Your task to perform on an android device: set default search engine in the chrome app Image 0: 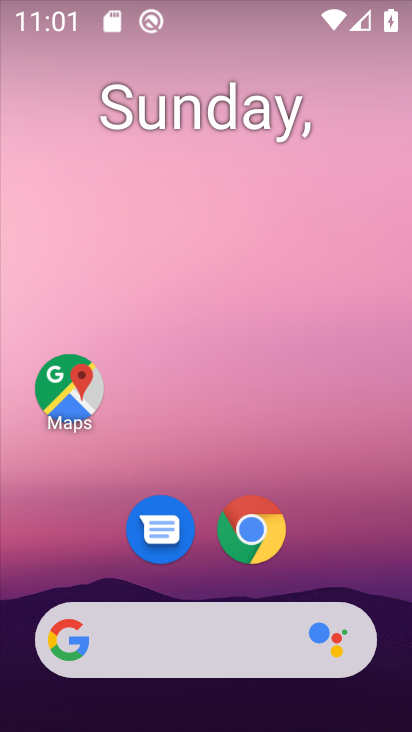
Step 0: drag from (382, 623) to (289, 128)
Your task to perform on an android device: set default search engine in the chrome app Image 1: 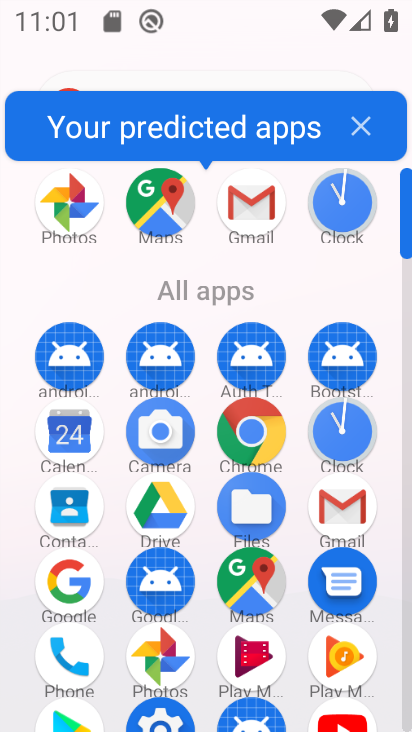
Step 1: click (244, 434)
Your task to perform on an android device: set default search engine in the chrome app Image 2: 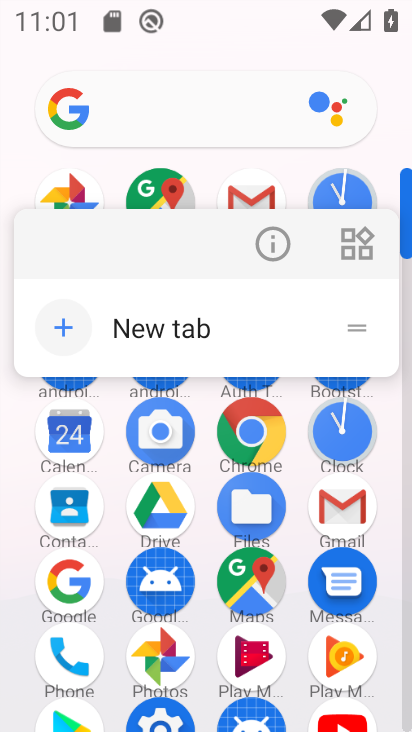
Step 2: click (244, 432)
Your task to perform on an android device: set default search engine in the chrome app Image 3: 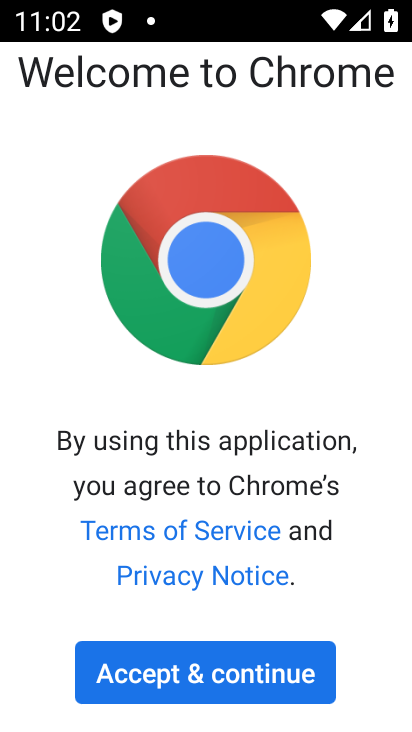
Step 3: click (223, 702)
Your task to perform on an android device: set default search engine in the chrome app Image 4: 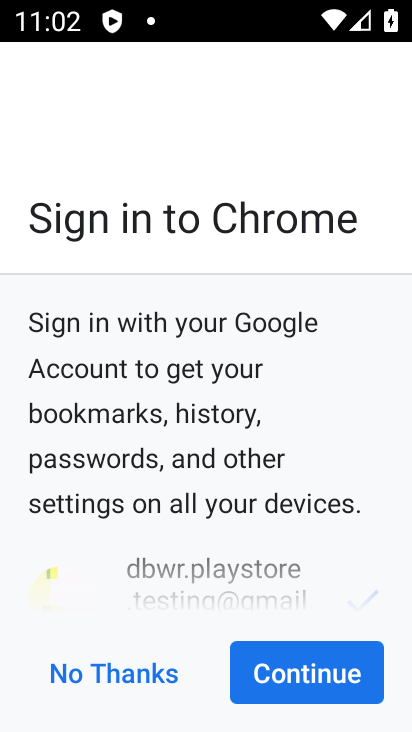
Step 4: click (263, 675)
Your task to perform on an android device: set default search engine in the chrome app Image 5: 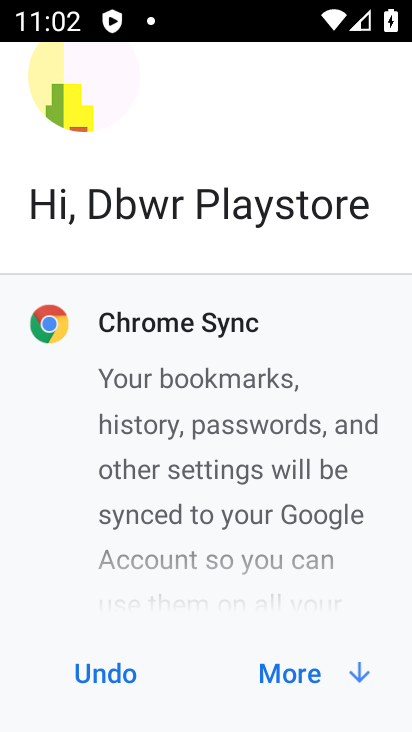
Step 5: click (263, 675)
Your task to perform on an android device: set default search engine in the chrome app Image 6: 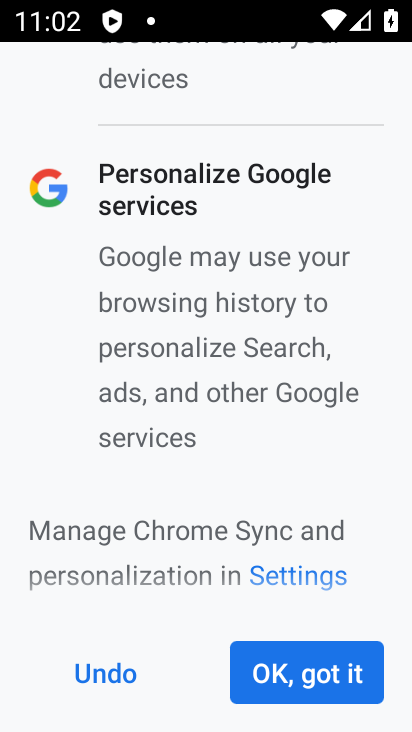
Step 6: click (263, 675)
Your task to perform on an android device: set default search engine in the chrome app Image 7: 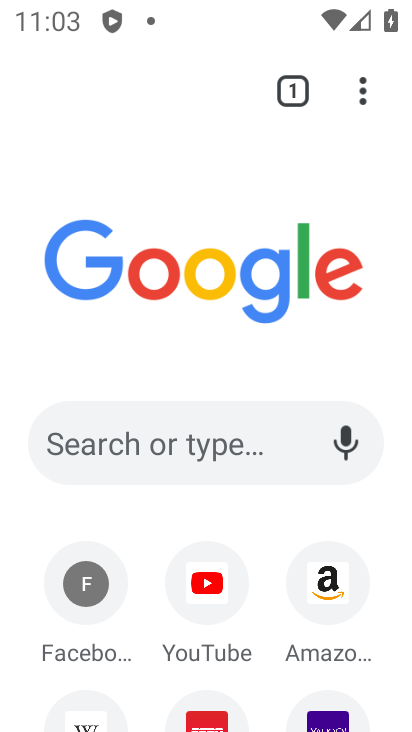
Step 7: click (364, 82)
Your task to perform on an android device: set default search engine in the chrome app Image 8: 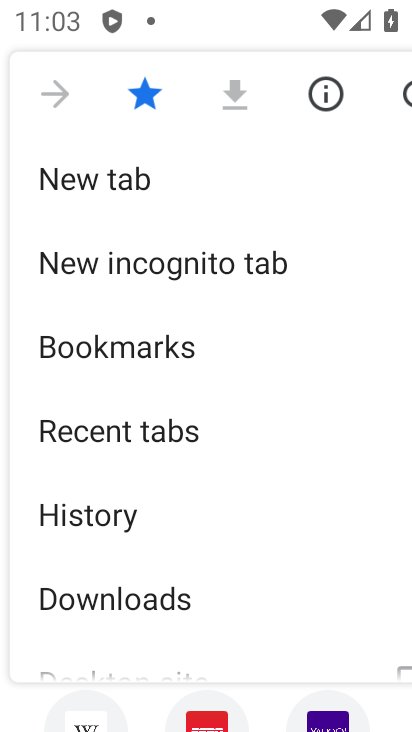
Step 8: drag from (118, 628) to (194, 185)
Your task to perform on an android device: set default search engine in the chrome app Image 9: 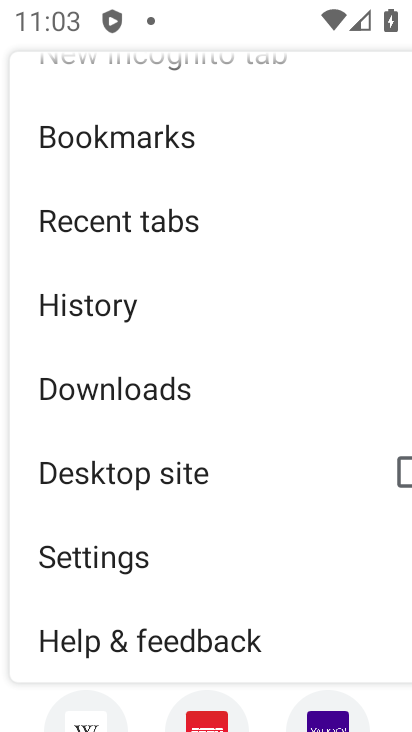
Step 9: click (84, 549)
Your task to perform on an android device: set default search engine in the chrome app Image 10: 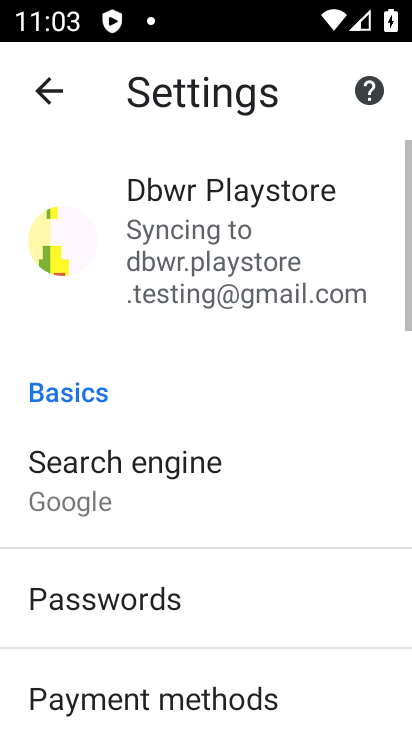
Step 10: click (109, 480)
Your task to perform on an android device: set default search engine in the chrome app Image 11: 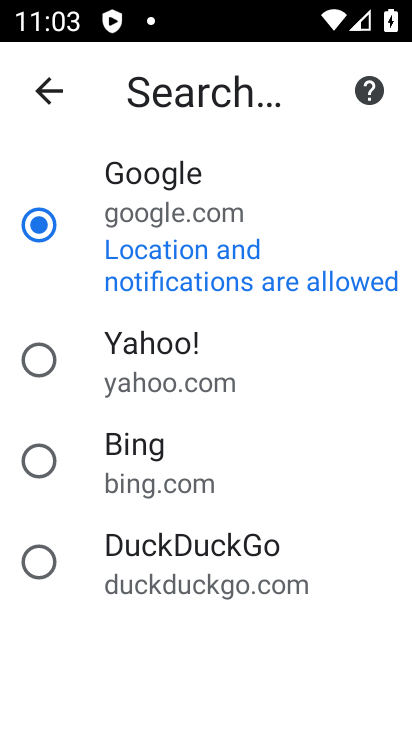
Step 11: click (150, 357)
Your task to perform on an android device: set default search engine in the chrome app Image 12: 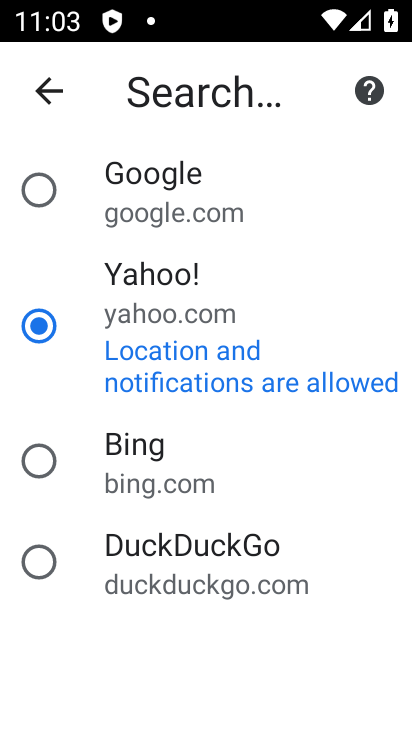
Step 12: task complete